Your task to perform on an android device: turn off location history Image 0: 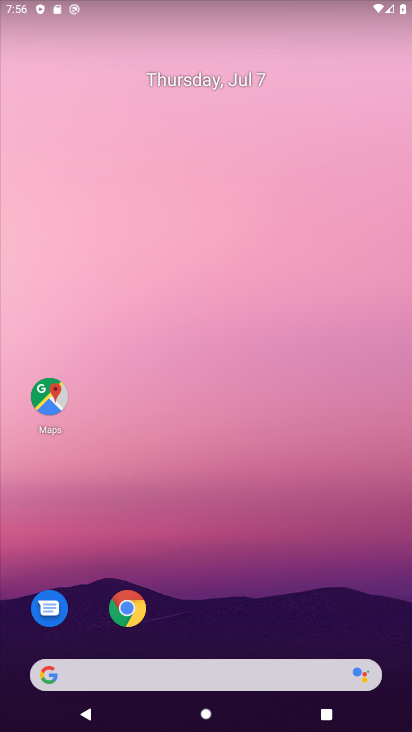
Step 0: drag from (213, 618) to (221, 206)
Your task to perform on an android device: turn off location history Image 1: 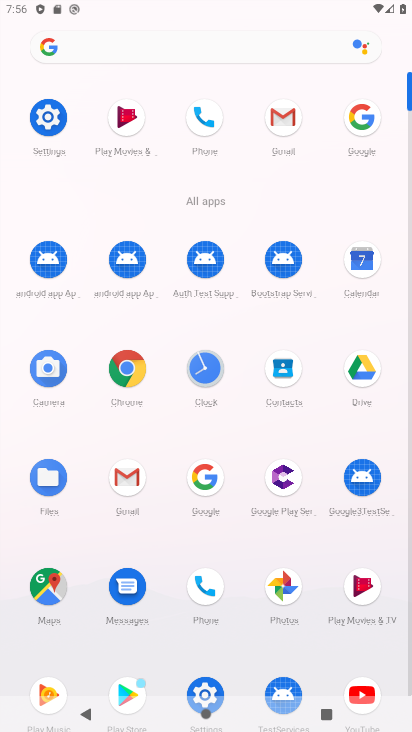
Step 1: click (50, 129)
Your task to perform on an android device: turn off location history Image 2: 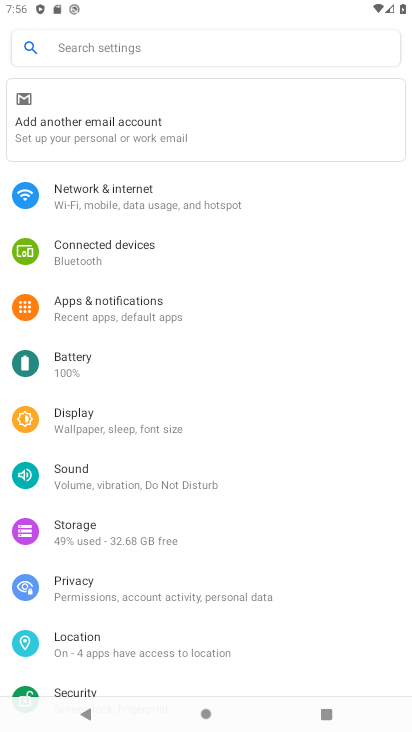
Step 2: click (106, 641)
Your task to perform on an android device: turn off location history Image 3: 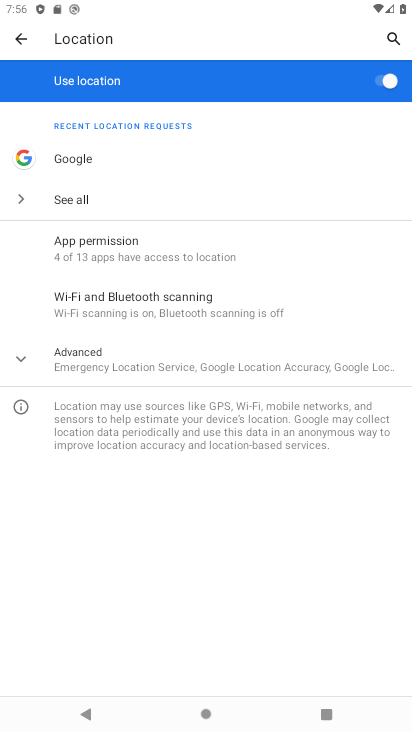
Step 3: click (194, 358)
Your task to perform on an android device: turn off location history Image 4: 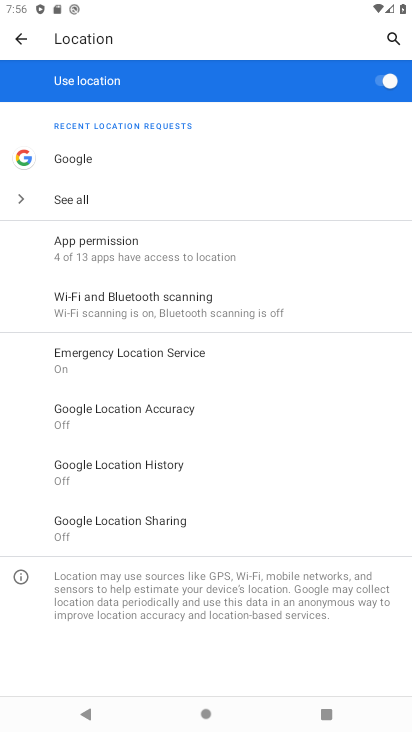
Step 4: click (189, 461)
Your task to perform on an android device: turn off location history Image 5: 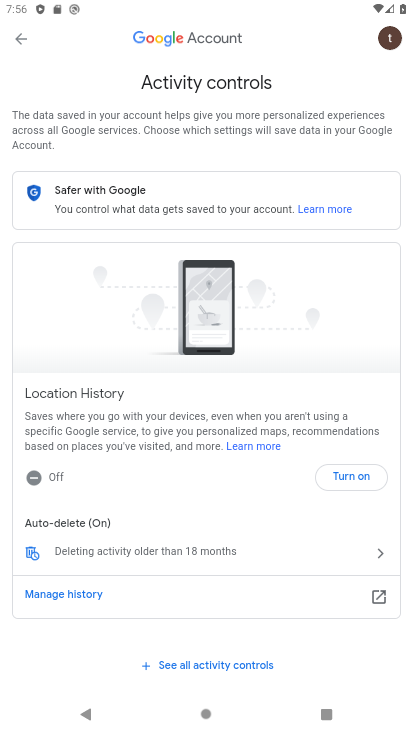
Step 5: task complete